Your task to perform on an android device: Search for pizza restaurants on Maps Image 0: 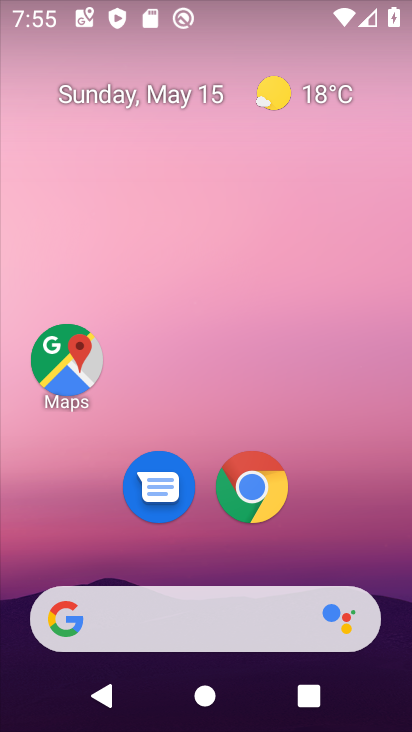
Step 0: click (68, 342)
Your task to perform on an android device: Search for pizza restaurants on Maps Image 1: 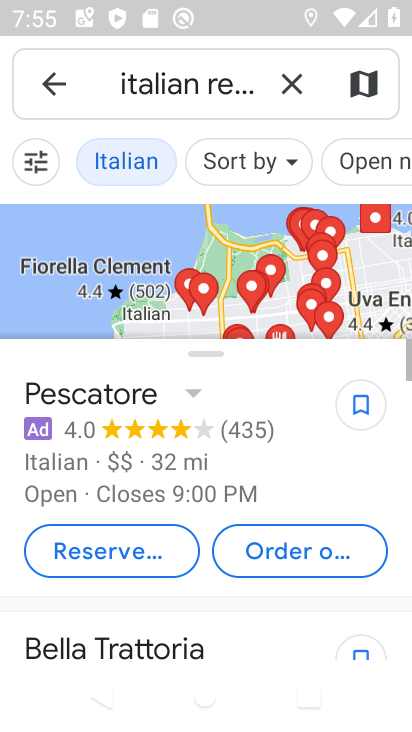
Step 1: click (287, 78)
Your task to perform on an android device: Search for pizza restaurants on Maps Image 2: 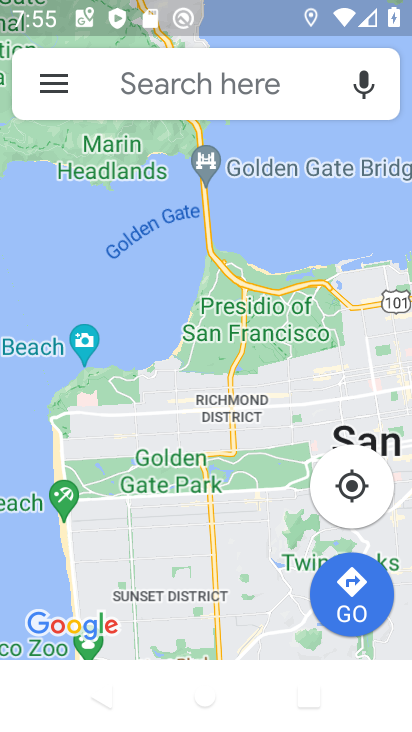
Step 2: click (143, 76)
Your task to perform on an android device: Search for pizza restaurants on Maps Image 3: 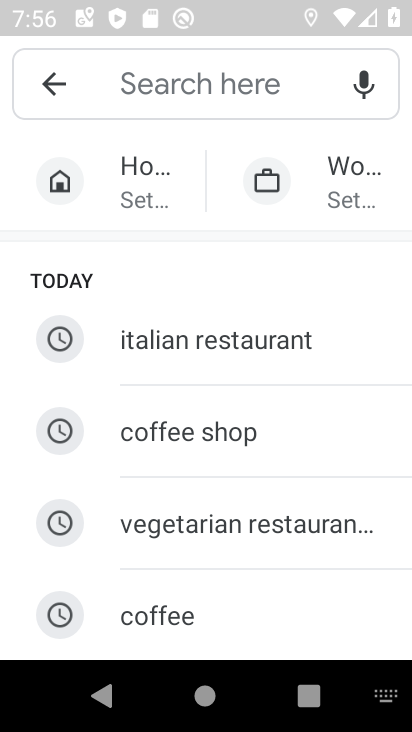
Step 3: type " pizza restaurants "
Your task to perform on an android device: Search for pizza restaurants on Maps Image 4: 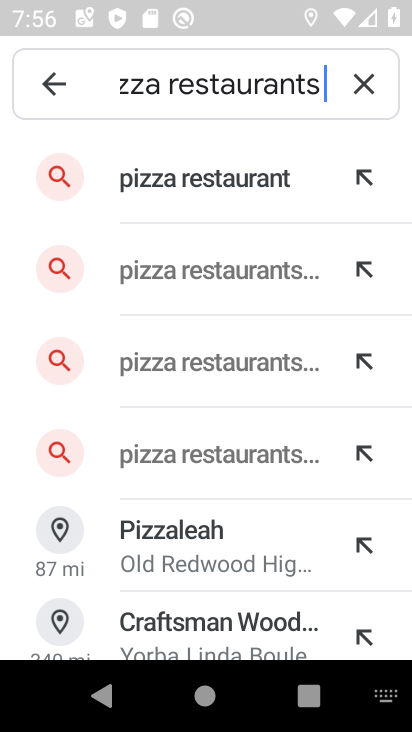
Step 4: click (237, 189)
Your task to perform on an android device: Search for pizza restaurants on Maps Image 5: 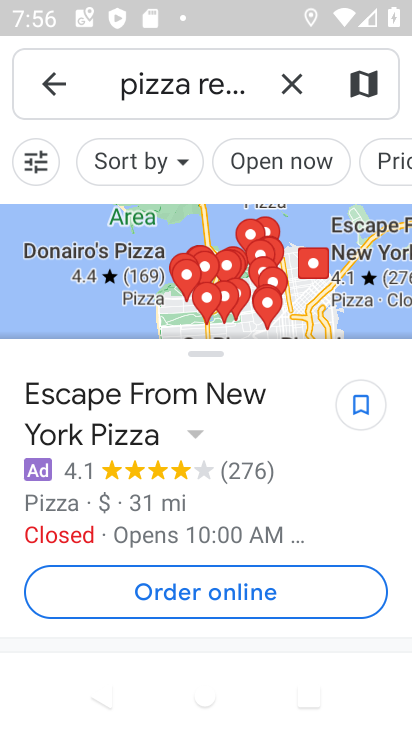
Step 5: task complete